Your task to perform on an android device: turn on location history Image 0: 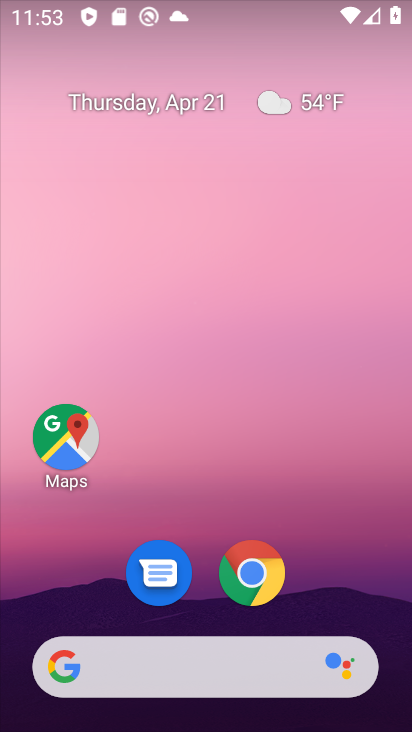
Step 0: drag from (381, 590) to (347, 103)
Your task to perform on an android device: turn on location history Image 1: 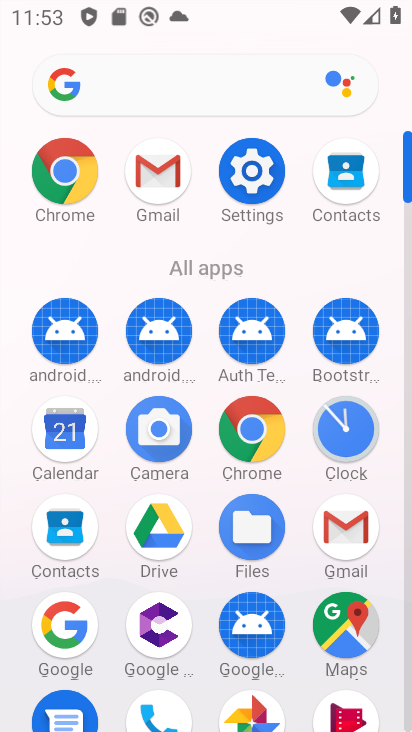
Step 1: click (248, 182)
Your task to perform on an android device: turn on location history Image 2: 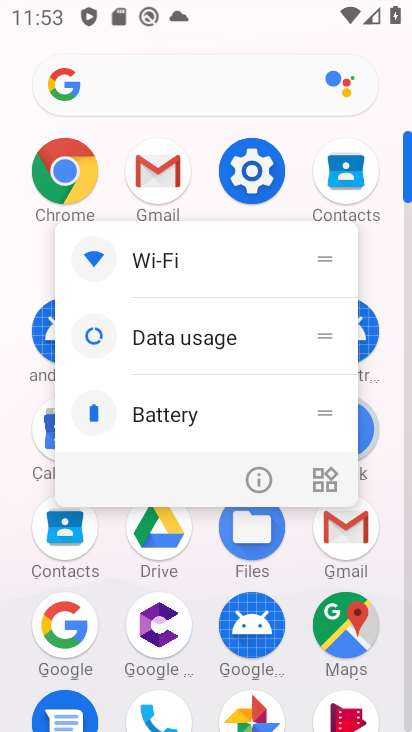
Step 2: click (248, 179)
Your task to perform on an android device: turn on location history Image 3: 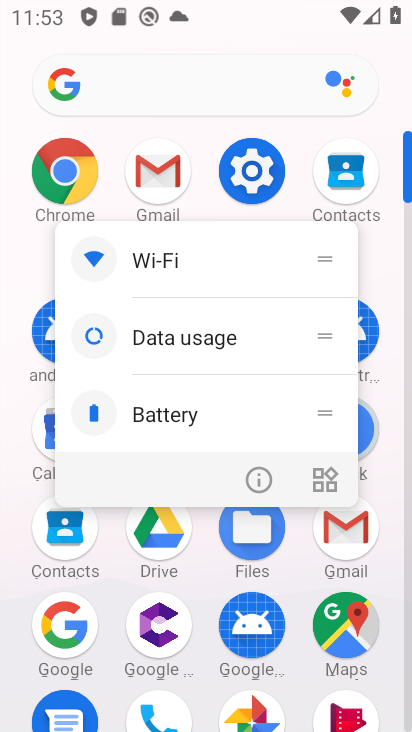
Step 3: click (252, 155)
Your task to perform on an android device: turn on location history Image 4: 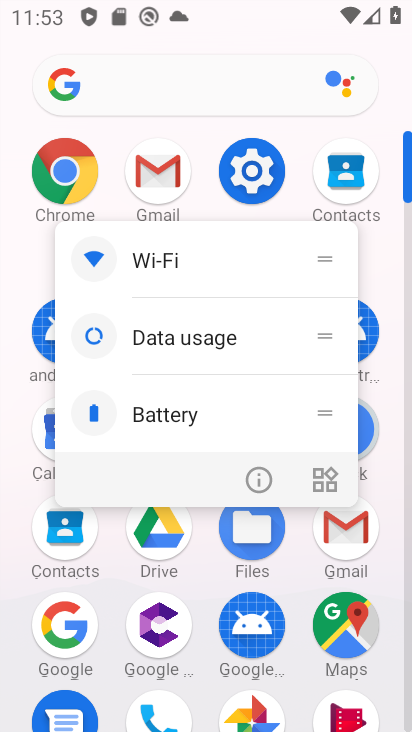
Step 4: click (245, 164)
Your task to perform on an android device: turn on location history Image 5: 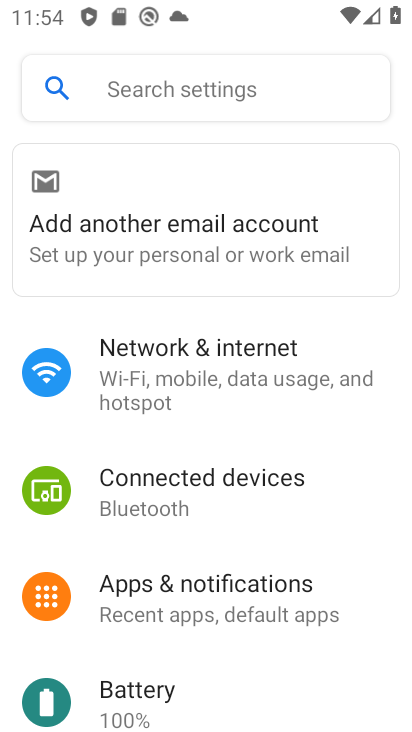
Step 5: drag from (343, 560) to (330, 385)
Your task to perform on an android device: turn on location history Image 6: 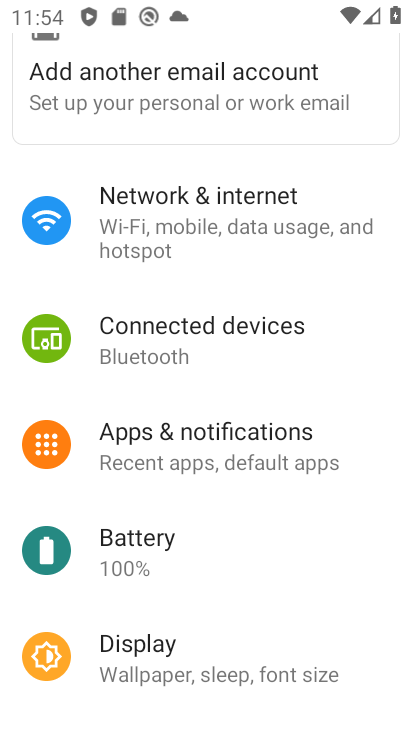
Step 6: drag from (320, 541) to (319, 351)
Your task to perform on an android device: turn on location history Image 7: 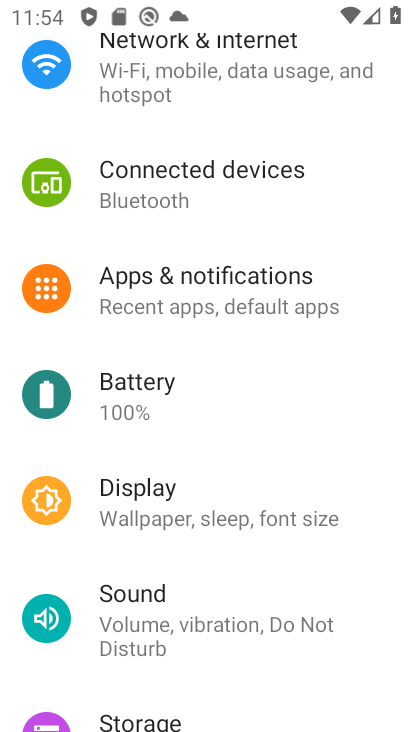
Step 7: drag from (314, 634) to (317, 354)
Your task to perform on an android device: turn on location history Image 8: 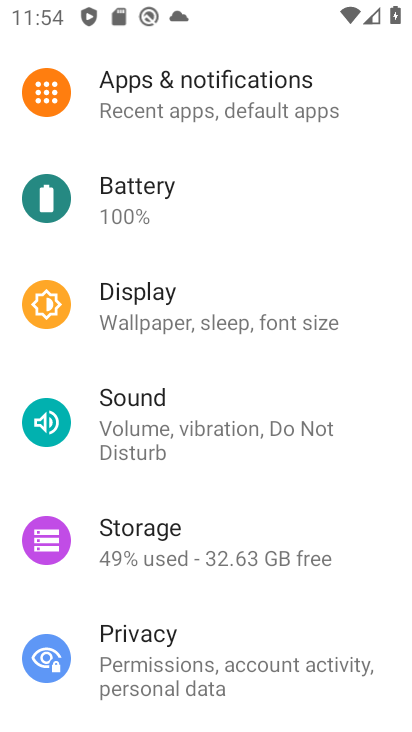
Step 8: drag from (294, 608) to (306, 242)
Your task to perform on an android device: turn on location history Image 9: 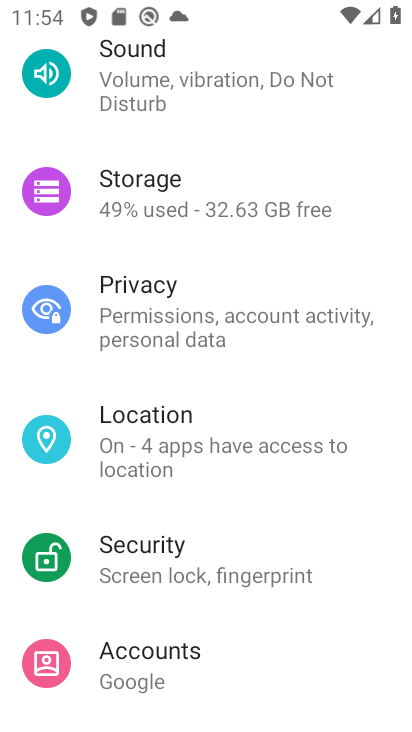
Step 9: click (248, 446)
Your task to perform on an android device: turn on location history Image 10: 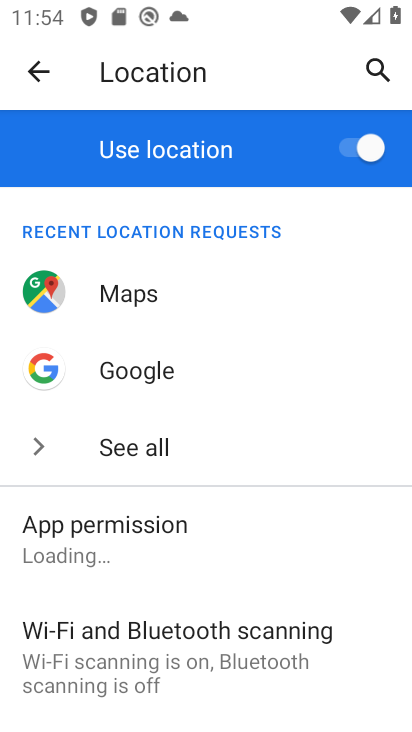
Step 10: drag from (306, 582) to (312, 348)
Your task to perform on an android device: turn on location history Image 11: 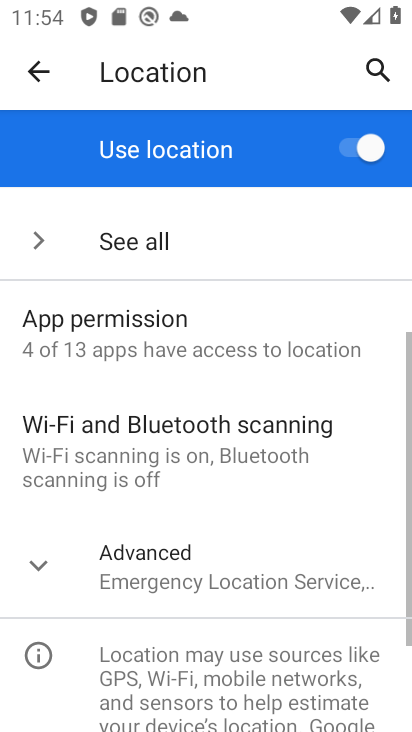
Step 11: click (298, 566)
Your task to perform on an android device: turn on location history Image 12: 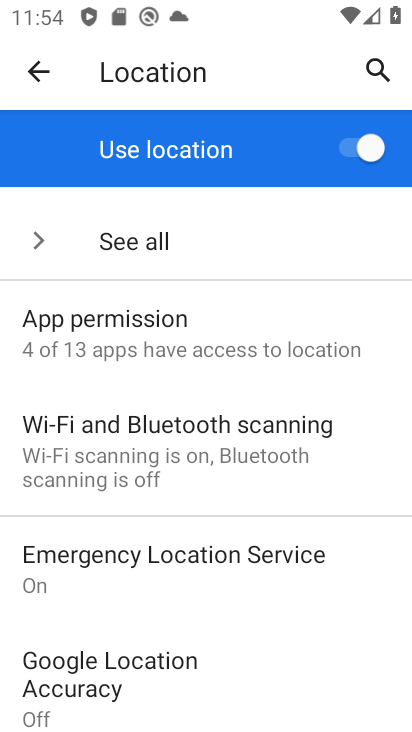
Step 12: drag from (268, 637) to (299, 388)
Your task to perform on an android device: turn on location history Image 13: 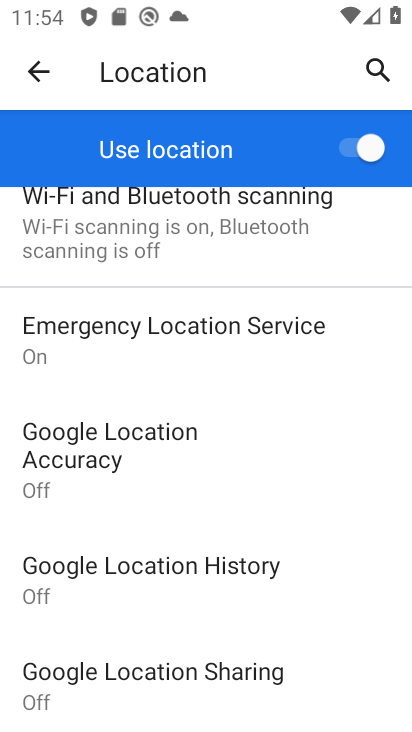
Step 13: click (221, 569)
Your task to perform on an android device: turn on location history Image 14: 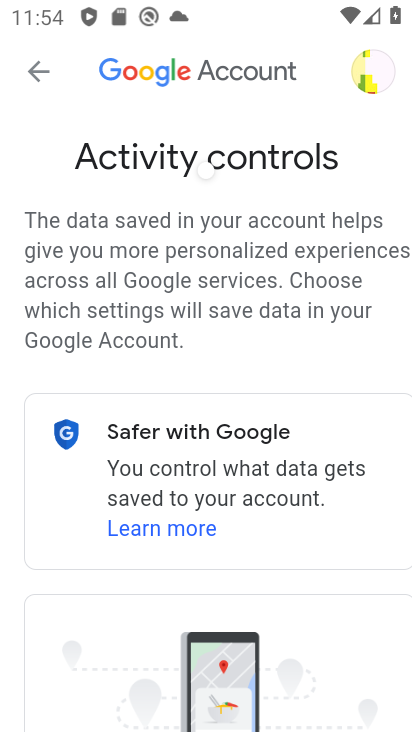
Step 14: drag from (349, 588) to (359, 326)
Your task to perform on an android device: turn on location history Image 15: 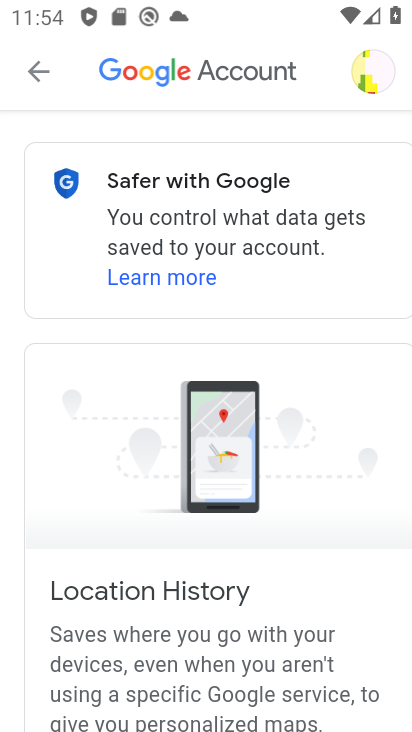
Step 15: drag from (314, 606) to (363, 285)
Your task to perform on an android device: turn on location history Image 16: 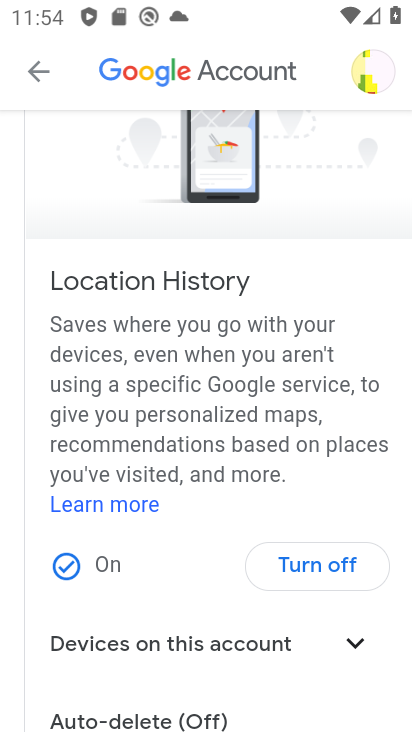
Step 16: click (76, 556)
Your task to perform on an android device: turn on location history Image 17: 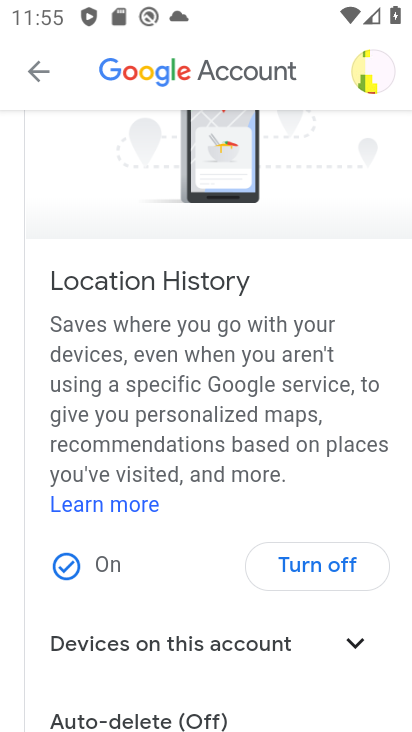
Step 17: task complete